Your task to perform on an android device: Search for "macbook pro" on amazon, select the first entry, add it to the cart, then select checkout. Image 0: 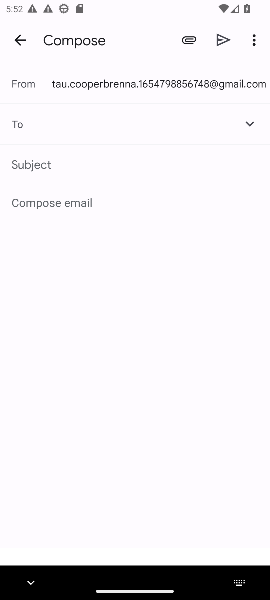
Step 0: press home button
Your task to perform on an android device: Search for "macbook pro" on amazon, select the first entry, add it to the cart, then select checkout. Image 1: 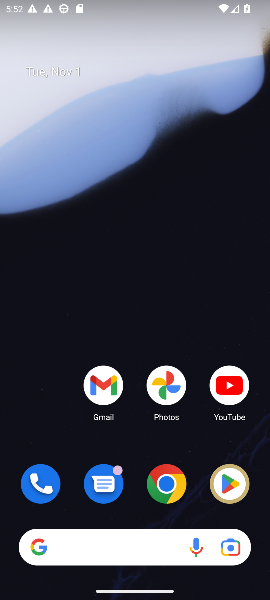
Step 1: click (169, 491)
Your task to perform on an android device: Search for "macbook pro" on amazon, select the first entry, add it to the cart, then select checkout. Image 2: 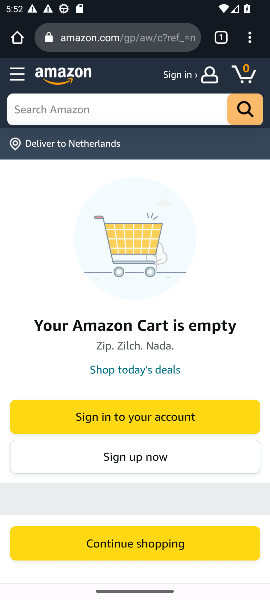
Step 2: task complete